Your task to perform on an android device: Add "logitech g910" to the cart on costco.com Image 0: 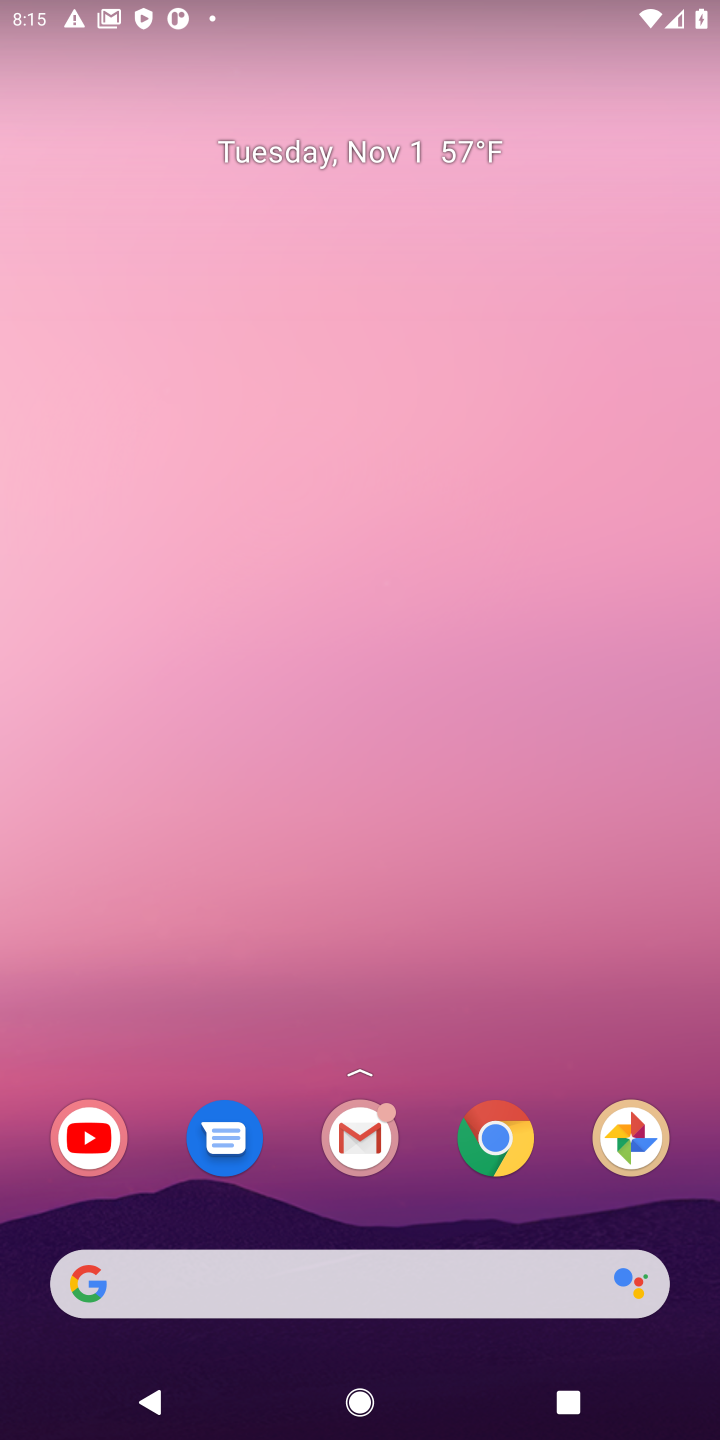
Step 0: click (499, 1135)
Your task to perform on an android device: Add "logitech g910" to the cart on costco.com Image 1: 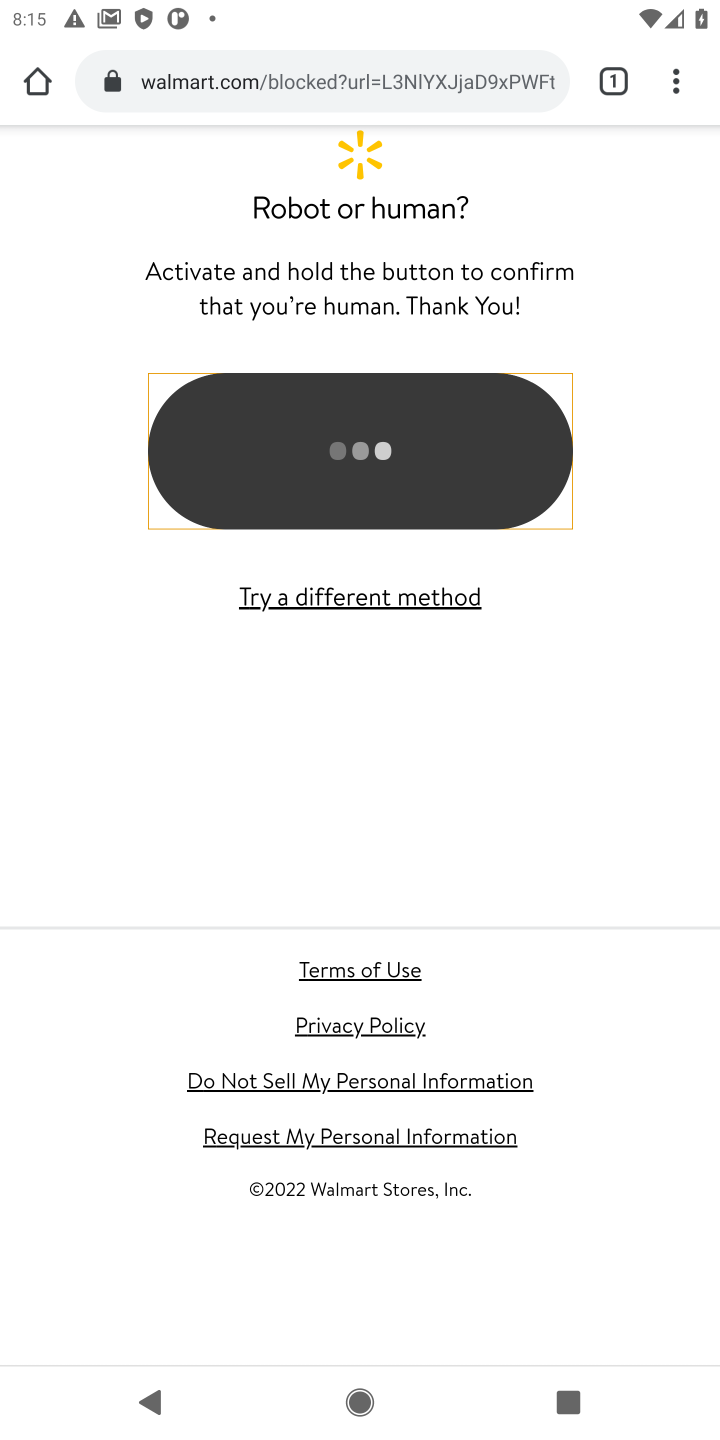
Step 1: click (188, 78)
Your task to perform on an android device: Add "logitech g910" to the cart on costco.com Image 2: 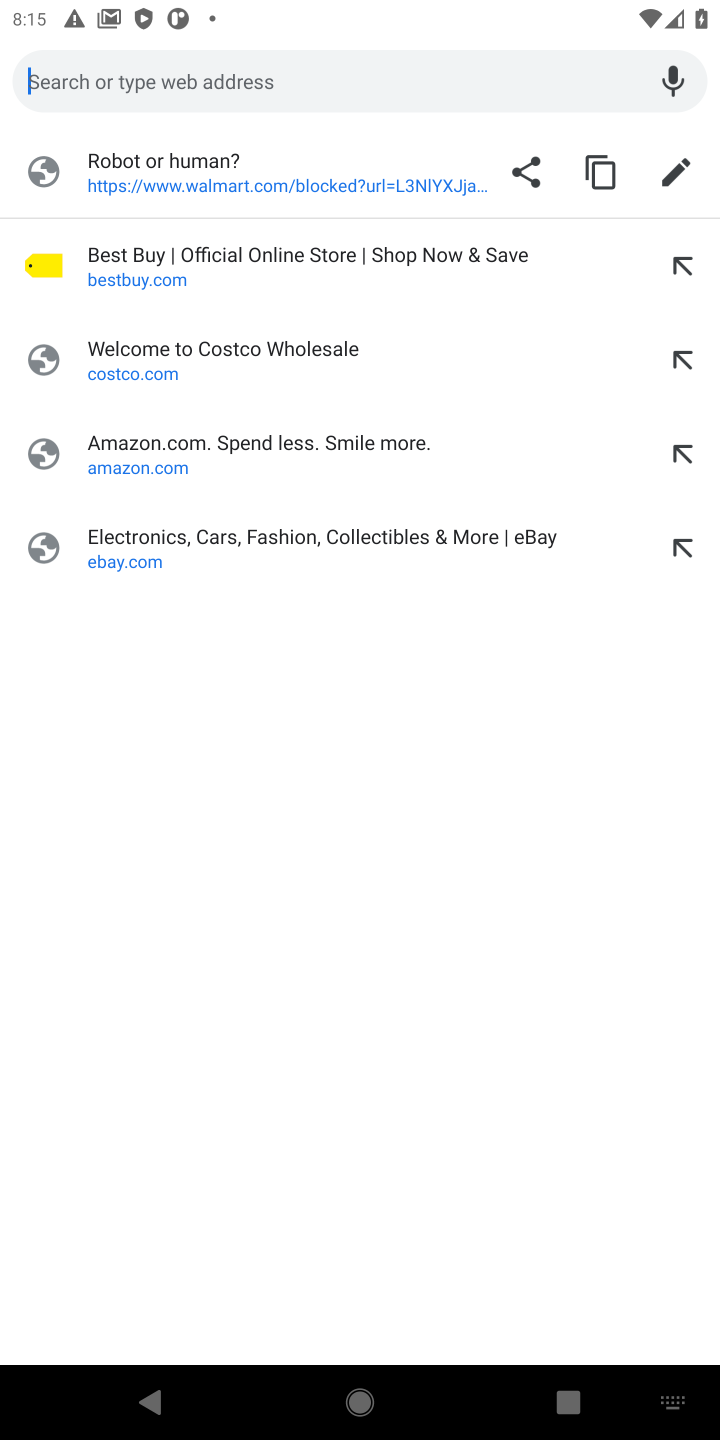
Step 2: type "costco.com"
Your task to perform on an android device: Add "logitech g910" to the cart on costco.com Image 3: 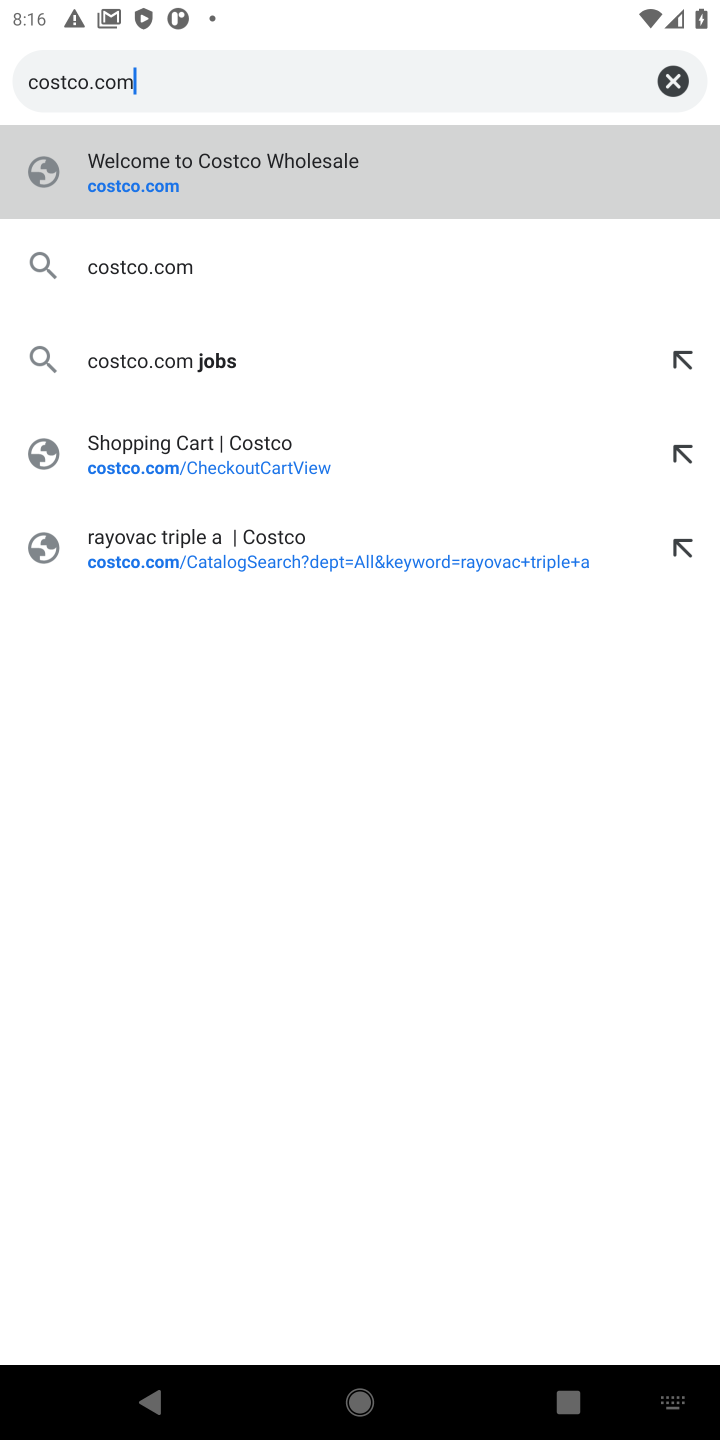
Step 3: click (165, 214)
Your task to perform on an android device: Add "logitech g910" to the cart on costco.com Image 4: 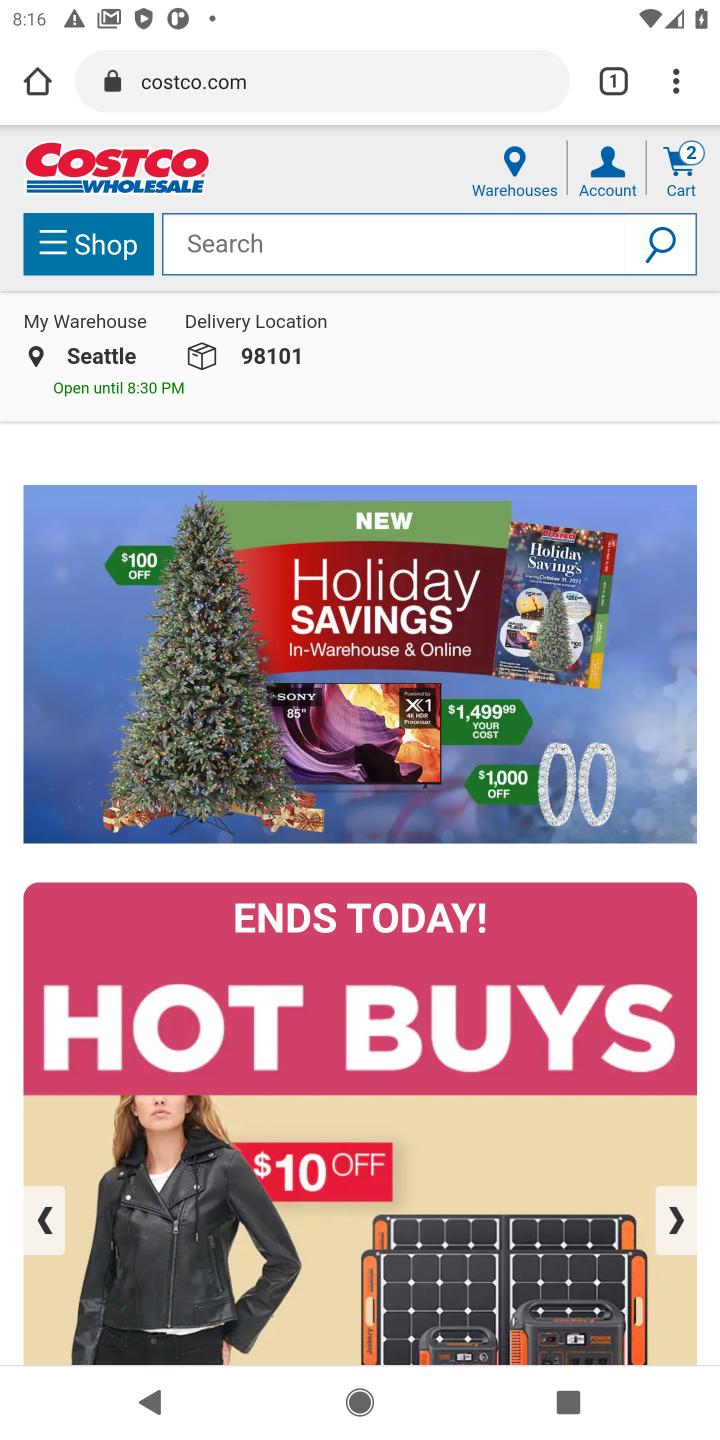
Step 4: click (231, 234)
Your task to perform on an android device: Add "logitech g910" to the cart on costco.com Image 5: 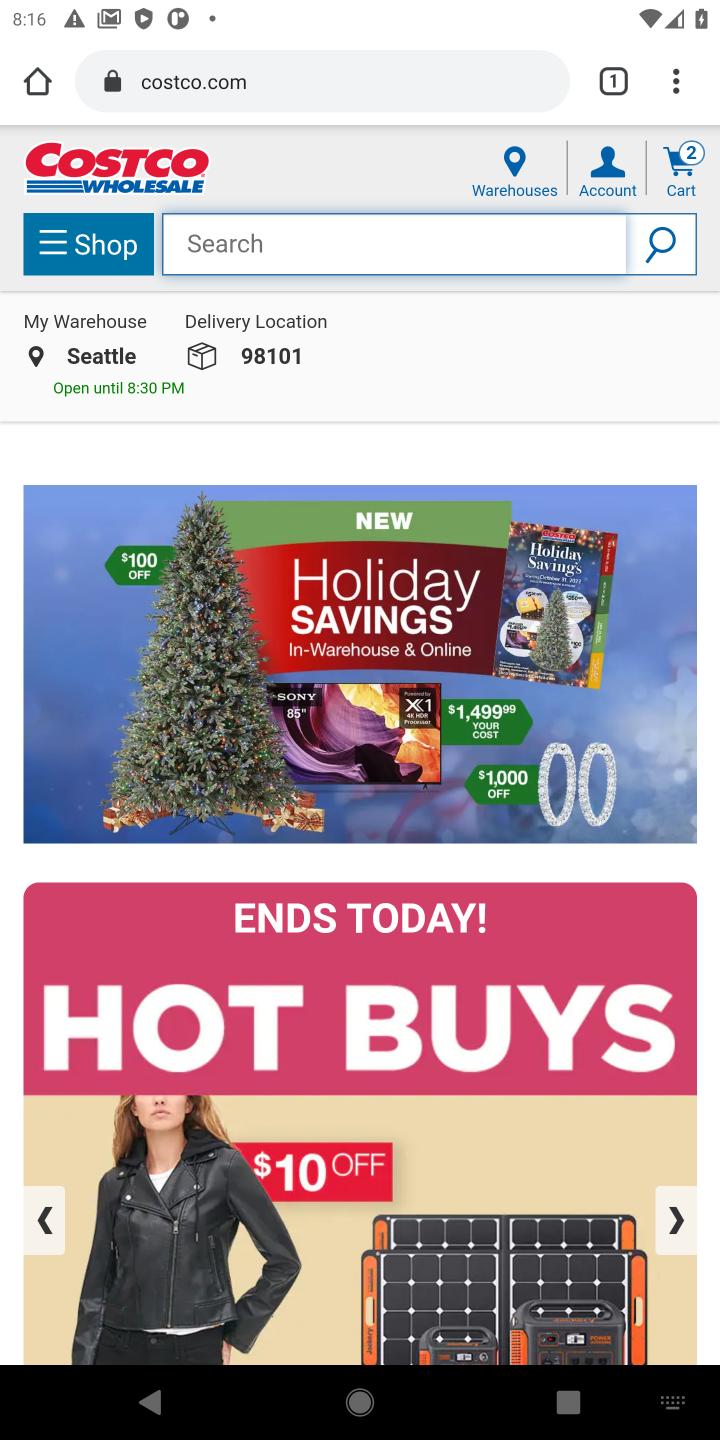
Step 5: type "logitech g910"
Your task to perform on an android device: Add "logitech g910" to the cart on costco.com Image 6: 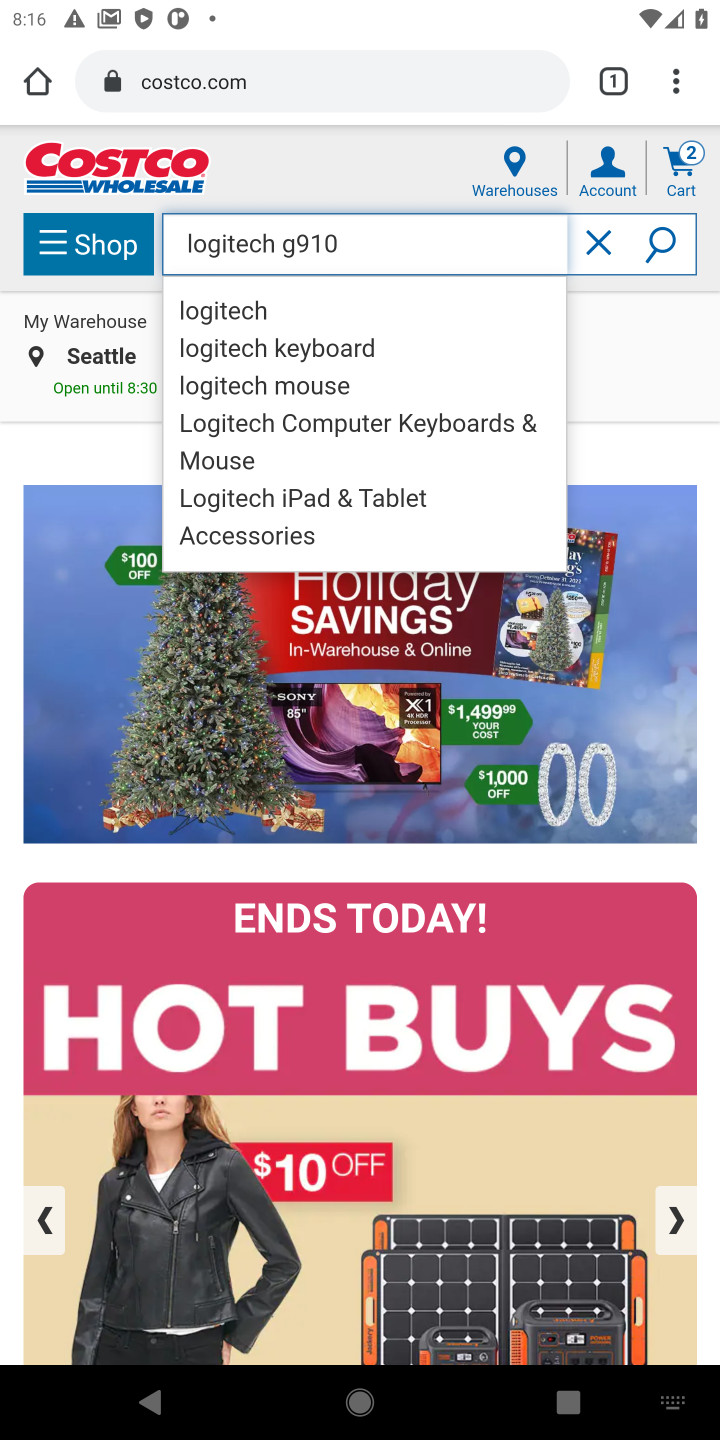
Step 6: click (642, 256)
Your task to perform on an android device: Add "logitech g910" to the cart on costco.com Image 7: 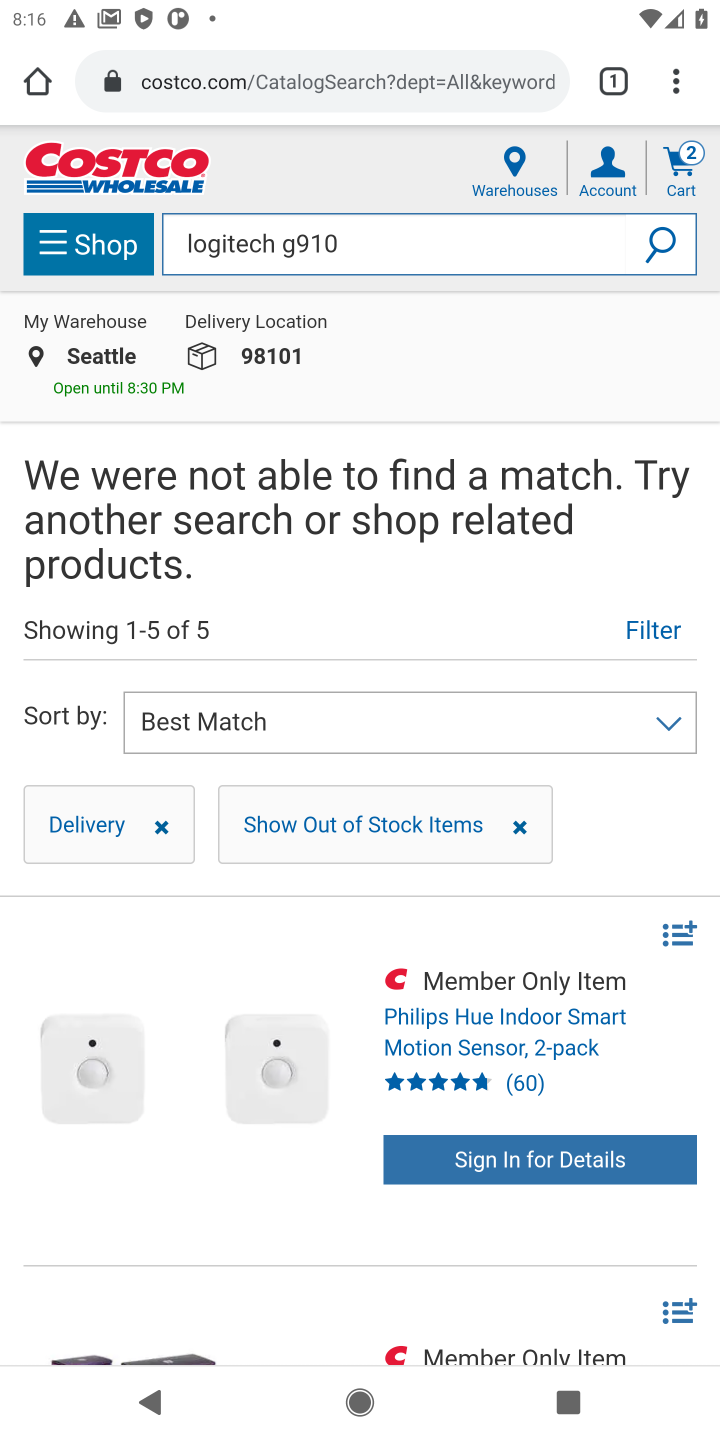
Step 7: task complete